Your task to perform on an android device: Open calendar and show me the first week of next month Image 0: 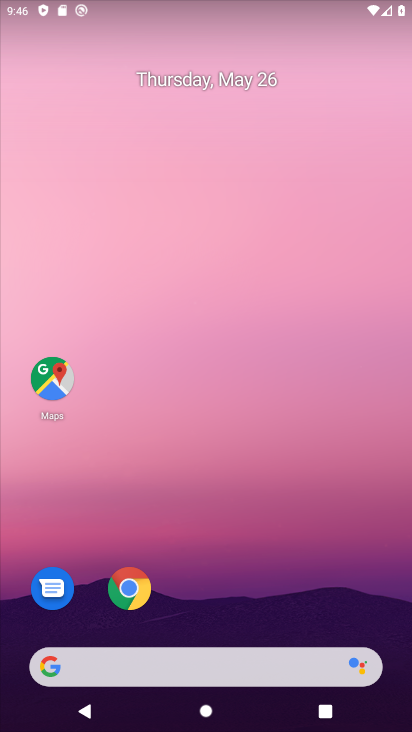
Step 0: drag from (262, 580) to (277, 198)
Your task to perform on an android device: Open calendar and show me the first week of next month Image 1: 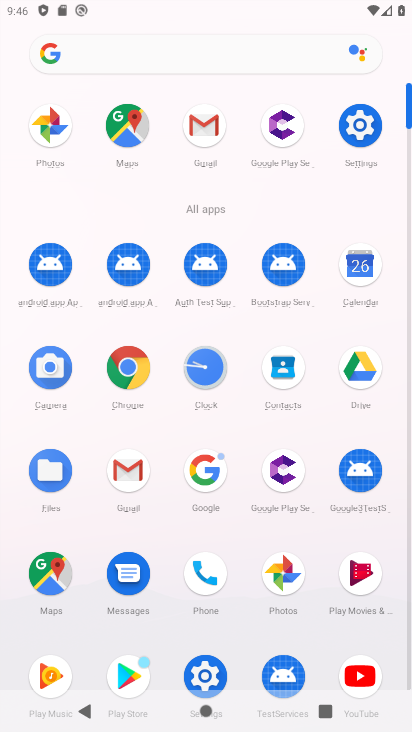
Step 1: click (363, 264)
Your task to perform on an android device: Open calendar and show me the first week of next month Image 2: 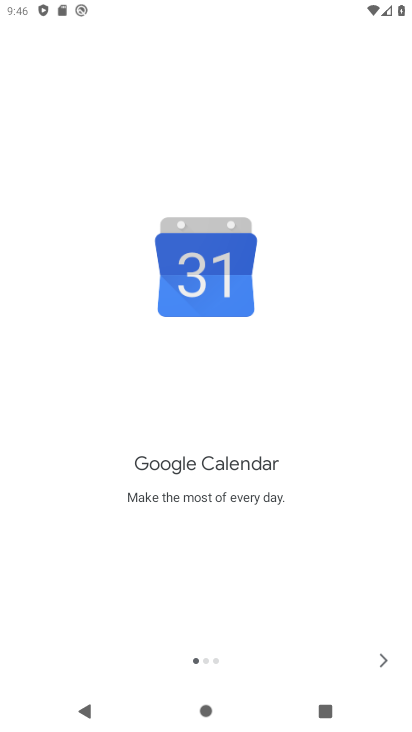
Step 2: click (373, 662)
Your task to perform on an android device: Open calendar and show me the first week of next month Image 3: 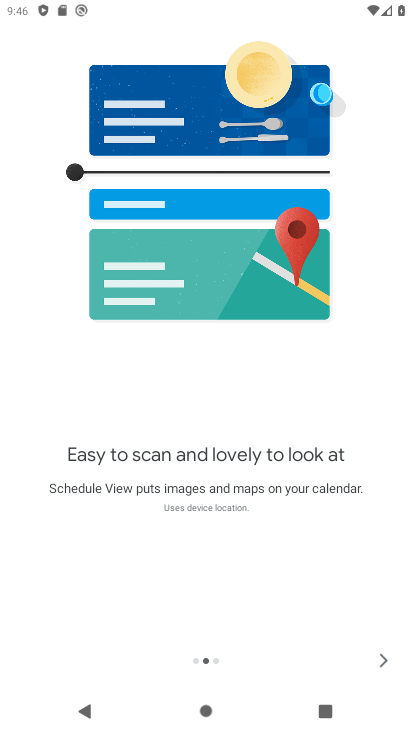
Step 3: click (374, 661)
Your task to perform on an android device: Open calendar and show me the first week of next month Image 4: 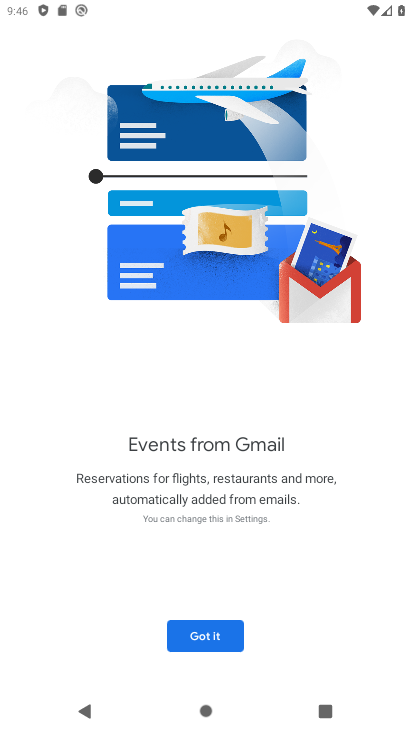
Step 4: click (211, 637)
Your task to perform on an android device: Open calendar and show me the first week of next month Image 5: 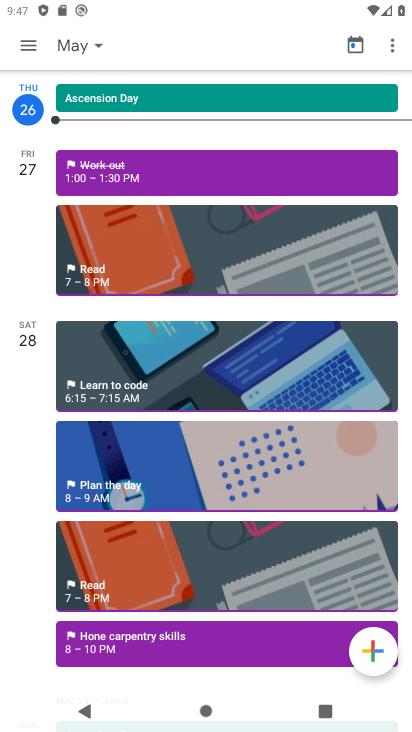
Step 5: click (79, 55)
Your task to perform on an android device: Open calendar and show me the first week of next month Image 6: 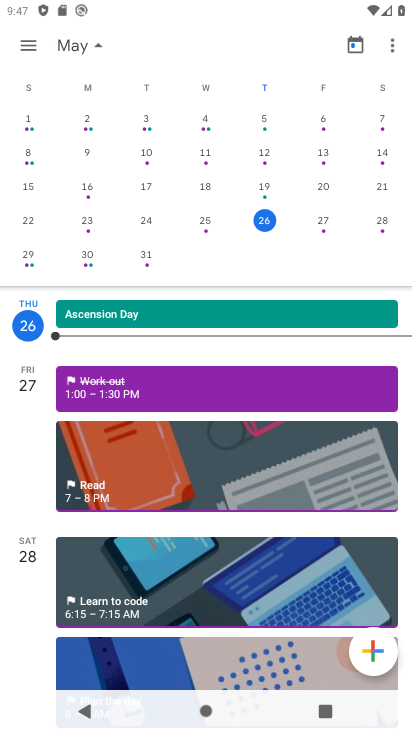
Step 6: drag from (387, 252) to (6, 235)
Your task to perform on an android device: Open calendar and show me the first week of next month Image 7: 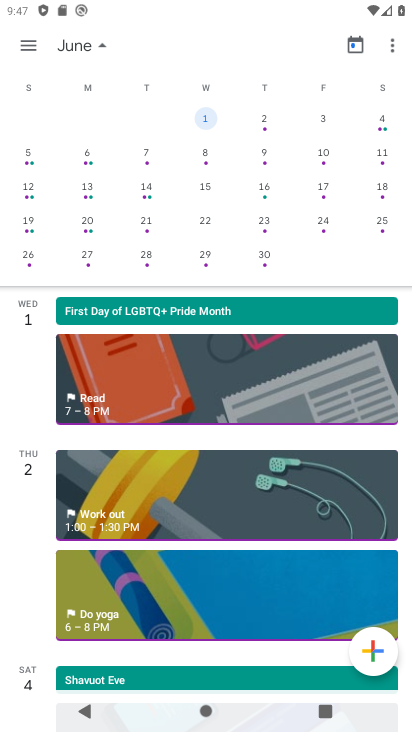
Step 7: click (204, 116)
Your task to perform on an android device: Open calendar and show me the first week of next month Image 8: 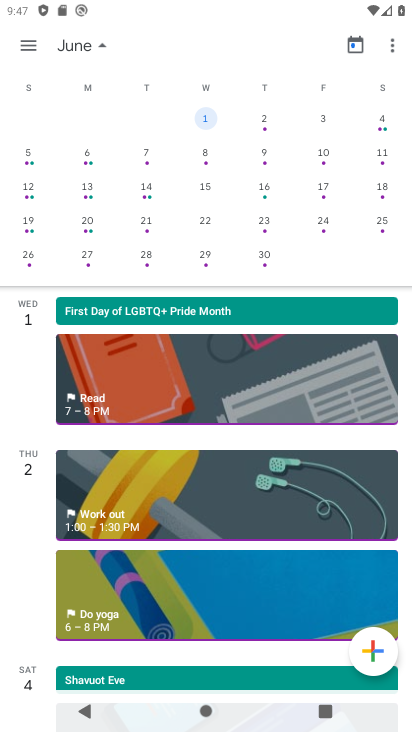
Step 8: task complete